Your task to perform on an android device: add a contact Image 0: 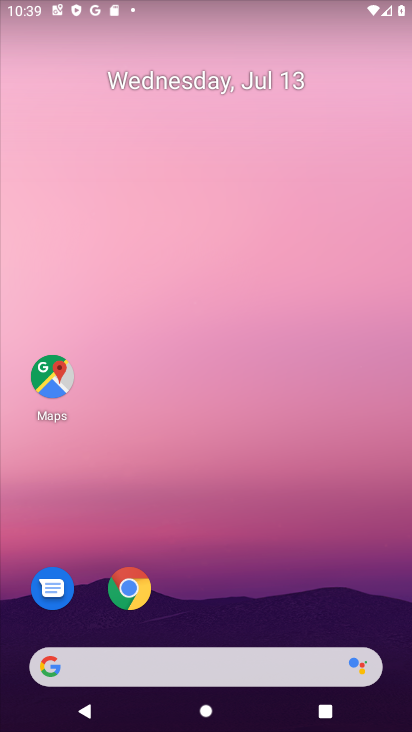
Step 0: drag from (231, 522) to (237, 56)
Your task to perform on an android device: add a contact Image 1: 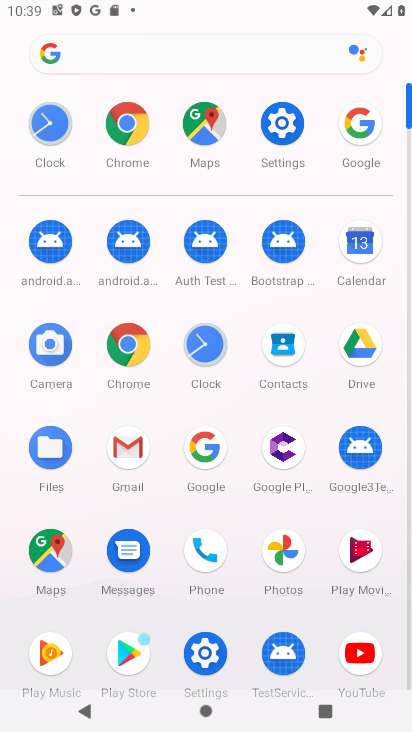
Step 1: click (283, 356)
Your task to perform on an android device: add a contact Image 2: 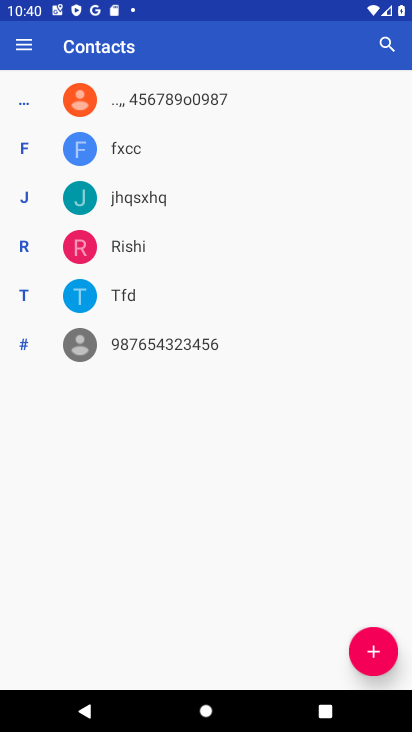
Step 2: click (366, 656)
Your task to perform on an android device: add a contact Image 3: 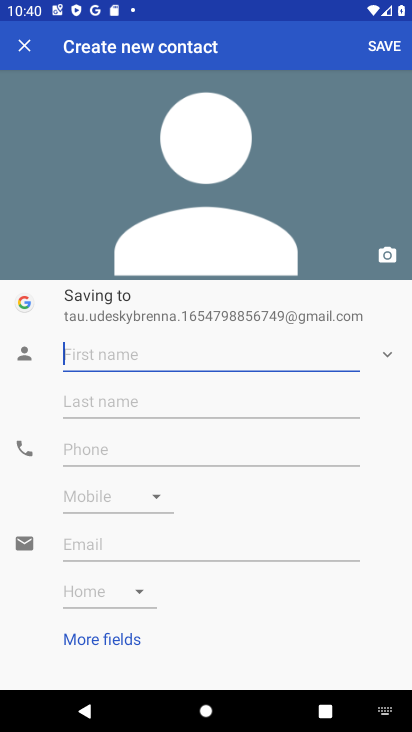
Step 3: type "jqgjxqgx"
Your task to perform on an android device: add a contact Image 4: 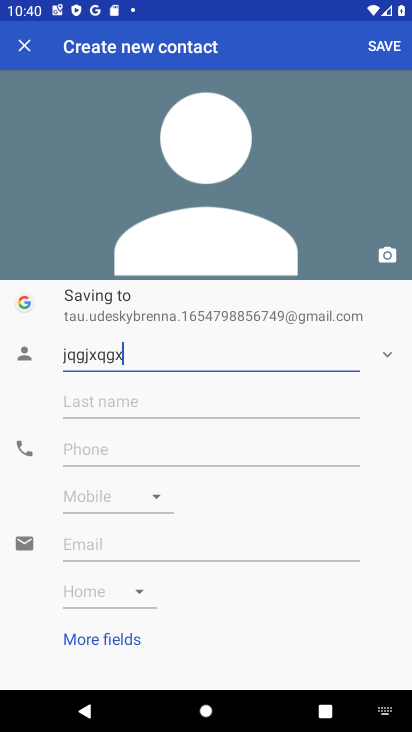
Step 4: click (140, 452)
Your task to perform on an android device: add a contact Image 5: 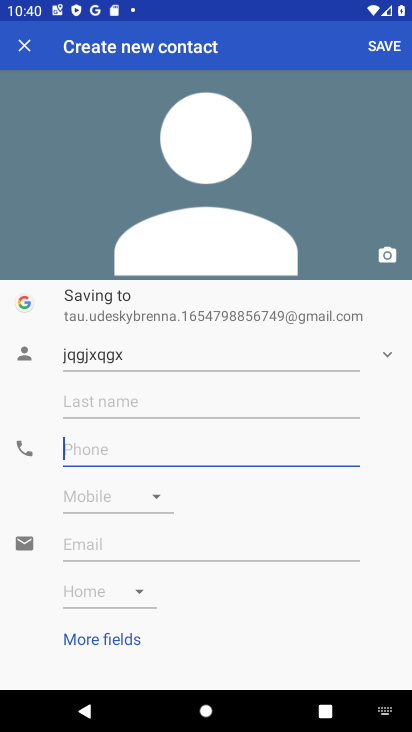
Step 5: type "7587487476"
Your task to perform on an android device: add a contact Image 6: 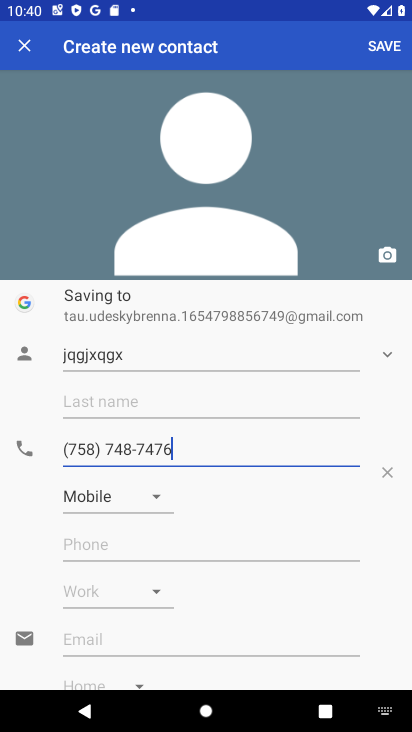
Step 6: click (392, 45)
Your task to perform on an android device: add a contact Image 7: 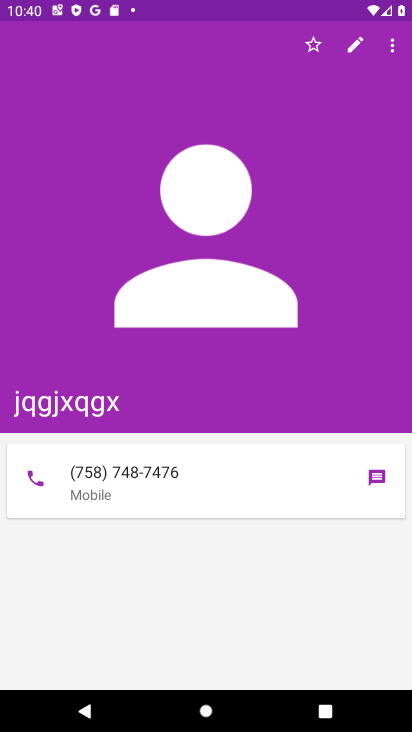
Step 7: task complete